Your task to perform on an android device: Open Maps and search for coffee Image 0: 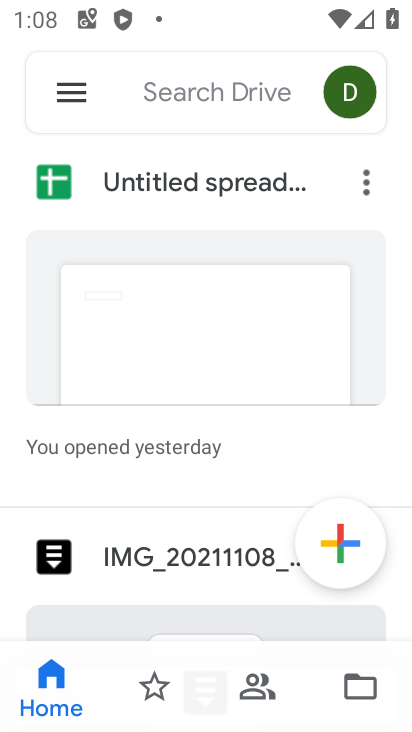
Step 0: press home button
Your task to perform on an android device: Open Maps and search for coffee Image 1: 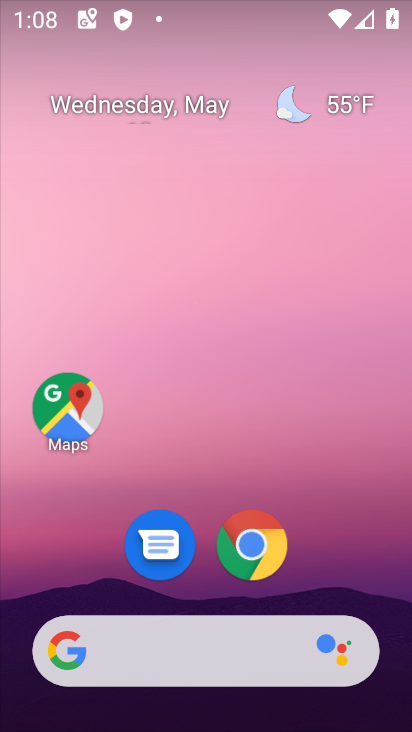
Step 1: drag from (345, 564) to (304, 529)
Your task to perform on an android device: Open Maps and search for coffee Image 2: 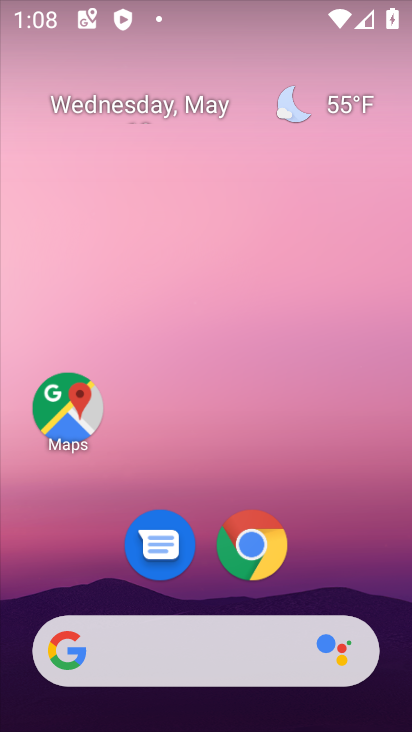
Step 2: click (84, 418)
Your task to perform on an android device: Open Maps and search for coffee Image 3: 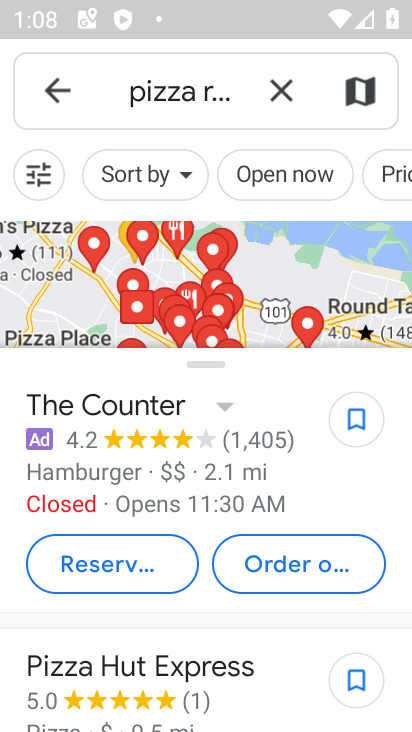
Step 3: click (277, 81)
Your task to perform on an android device: Open Maps and search for coffee Image 4: 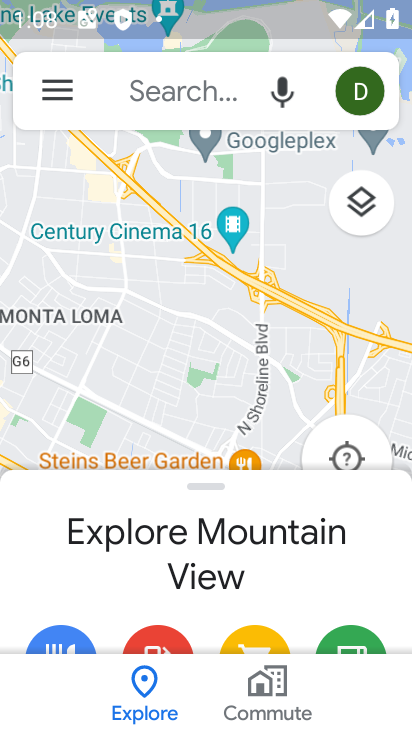
Step 4: click (201, 86)
Your task to perform on an android device: Open Maps and search for coffee Image 5: 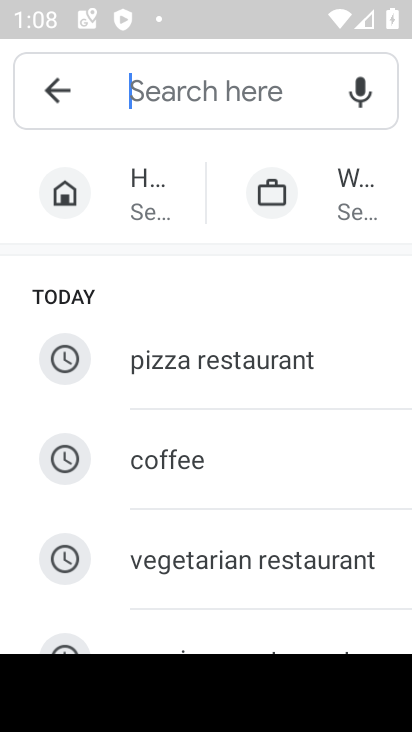
Step 5: click (217, 444)
Your task to perform on an android device: Open Maps and search for coffee Image 6: 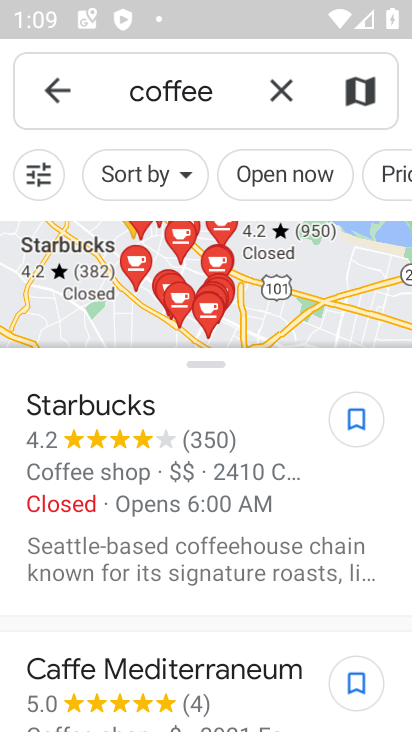
Step 6: task complete